Your task to perform on an android device: move an email to a new category in the gmail app Image 0: 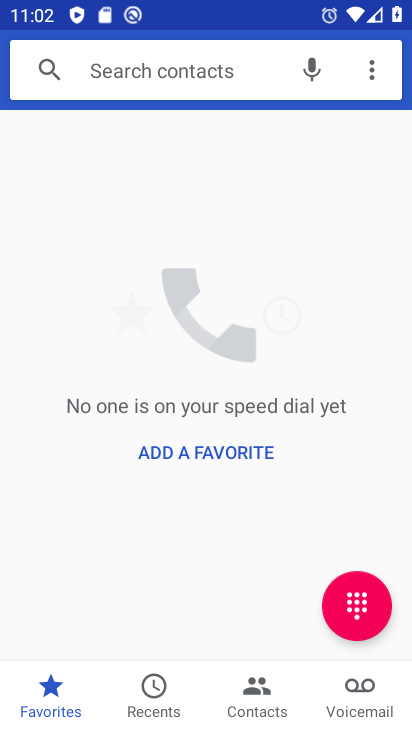
Step 0: press home button
Your task to perform on an android device: move an email to a new category in the gmail app Image 1: 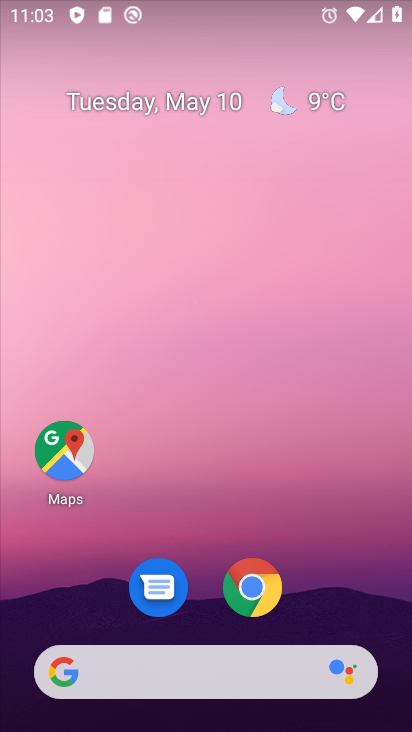
Step 1: drag from (349, 586) to (337, 1)
Your task to perform on an android device: move an email to a new category in the gmail app Image 2: 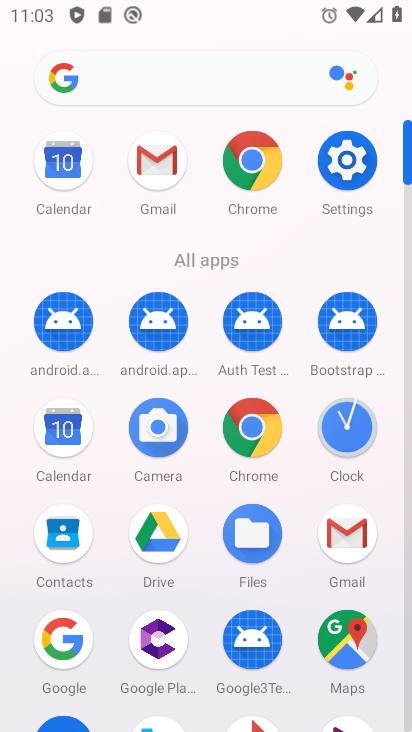
Step 2: click (152, 178)
Your task to perform on an android device: move an email to a new category in the gmail app Image 3: 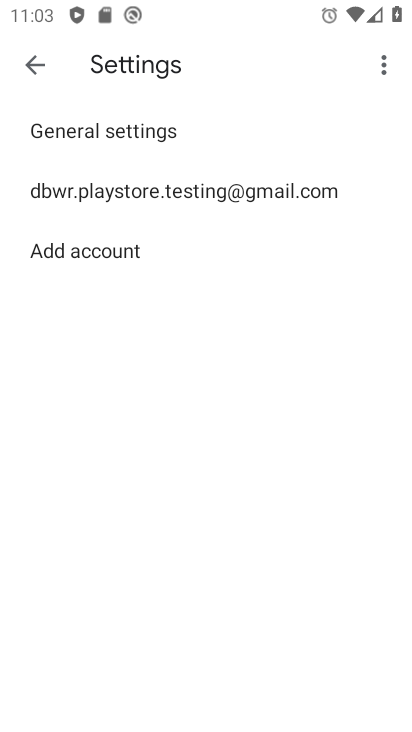
Step 3: click (28, 64)
Your task to perform on an android device: move an email to a new category in the gmail app Image 4: 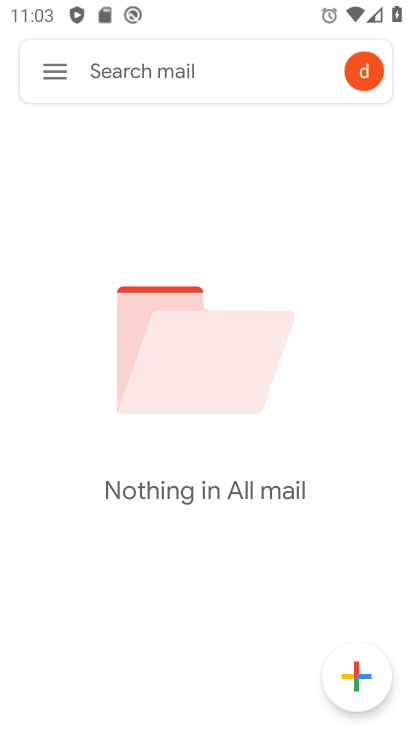
Step 4: task complete